Your task to perform on an android device: Go to sound settings Image 0: 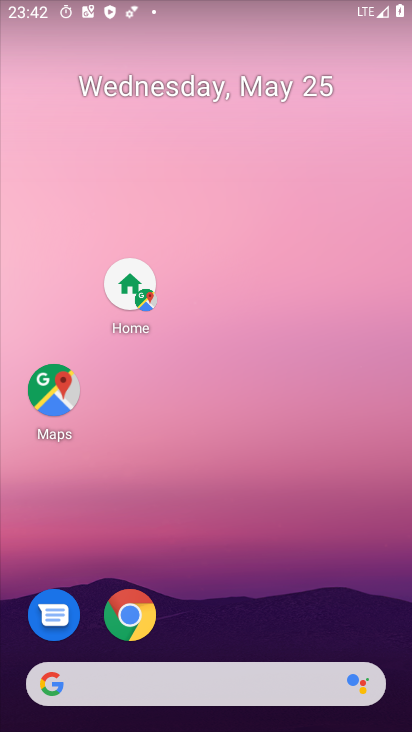
Step 0: press home button
Your task to perform on an android device: Go to sound settings Image 1: 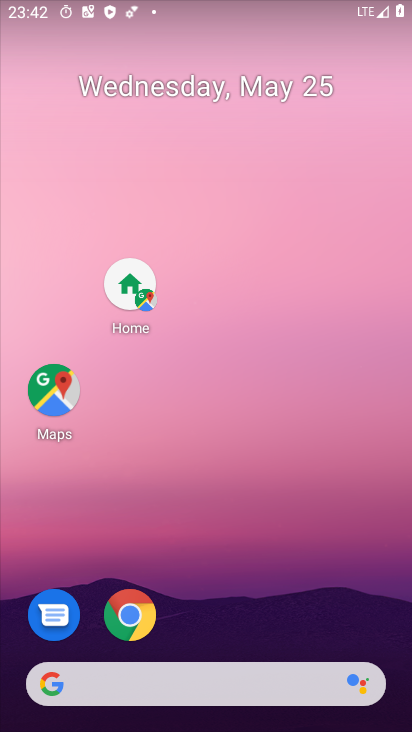
Step 1: drag from (260, 501) to (261, 69)
Your task to perform on an android device: Go to sound settings Image 2: 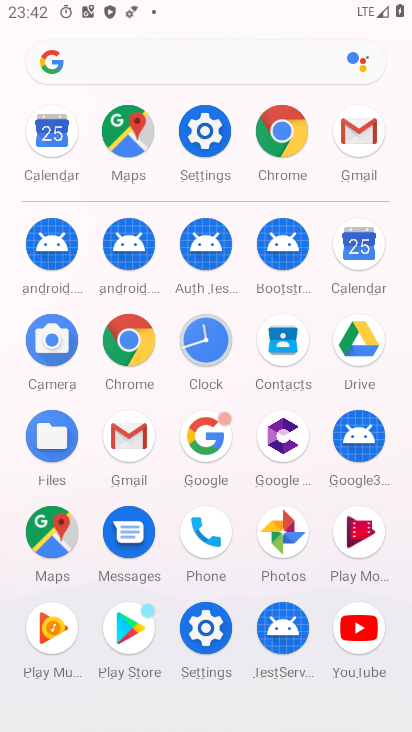
Step 2: click (206, 144)
Your task to perform on an android device: Go to sound settings Image 3: 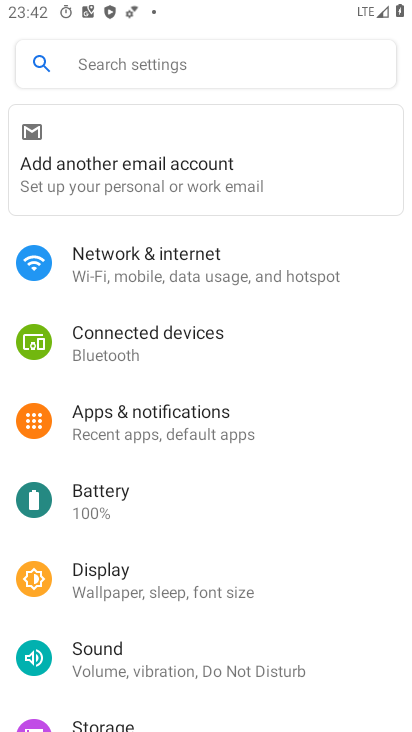
Step 3: click (114, 662)
Your task to perform on an android device: Go to sound settings Image 4: 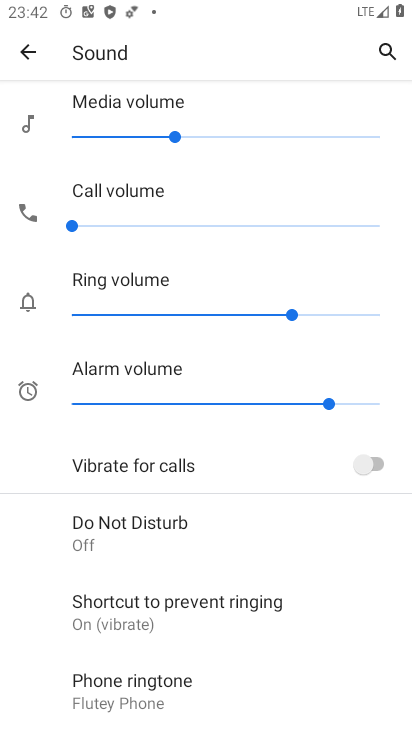
Step 4: task complete